Your task to perform on an android device: What's on my calendar tomorrow? Image 0: 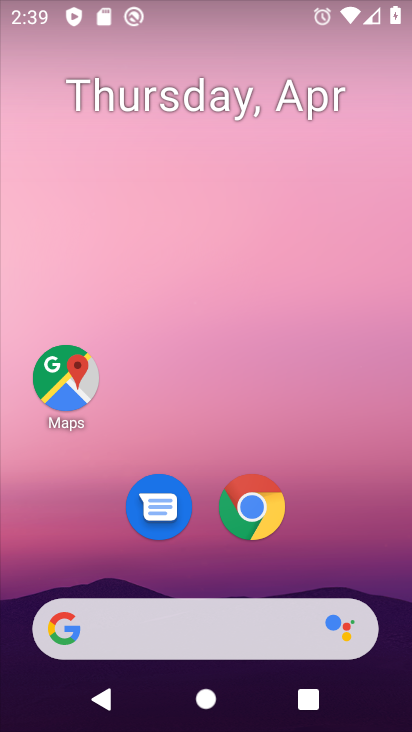
Step 0: drag from (377, 571) to (375, 108)
Your task to perform on an android device: What's on my calendar tomorrow? Image 1: 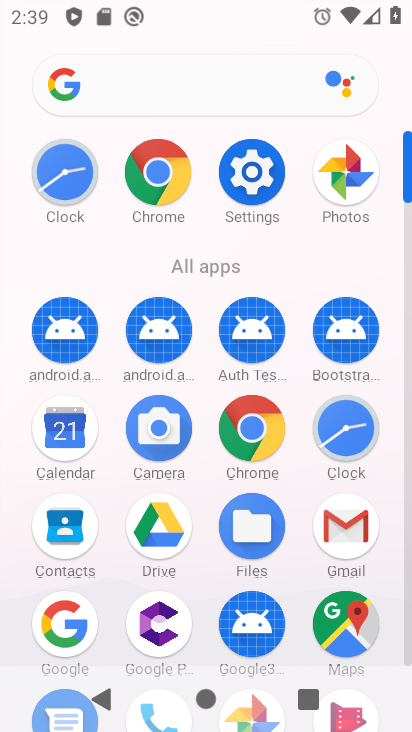
Step 1: click (53, 430)
Your task to perform on an android device: What's on my calendar tomorrow? Image 2: 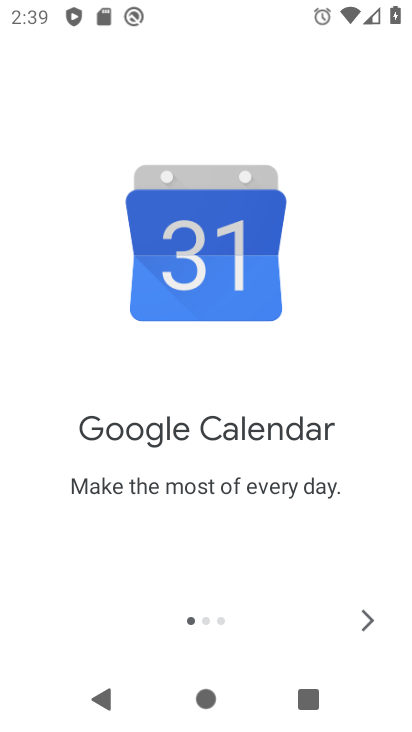
Step 2: click (366, 614)
Your task to perform on an android device: What's on my calendar tomorrow? Image 3: 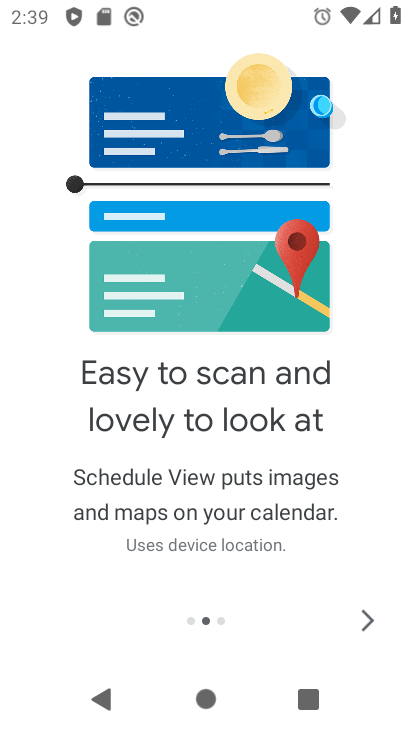
Step 3: click (366, 614)
Your task to perform on an android device: What's on my calendar tomorrow? Image 4: 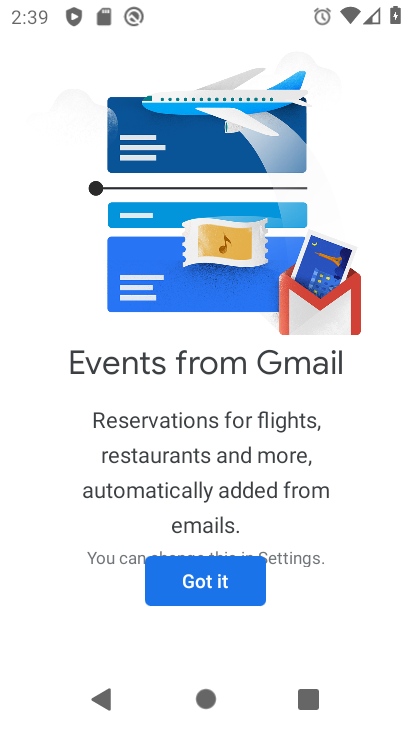
Step 4: click (244, 586)
Your task to perform on an android device: What's on my calendar tomorrow? Image 5: 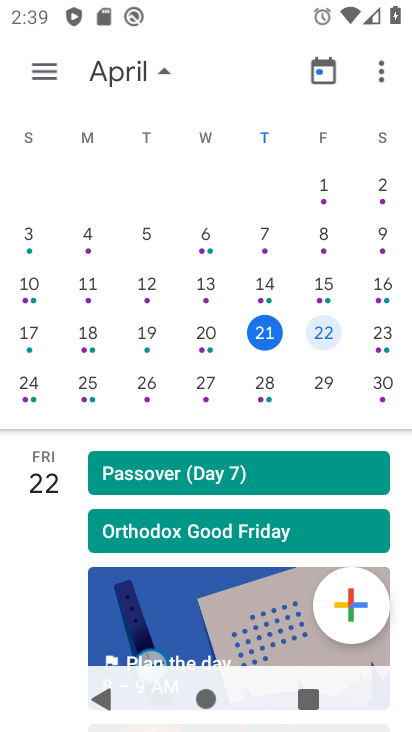
Step 5: click (326, 333)
Your task to perform on an android device: What's on my calendar tomorrow? Image 6: 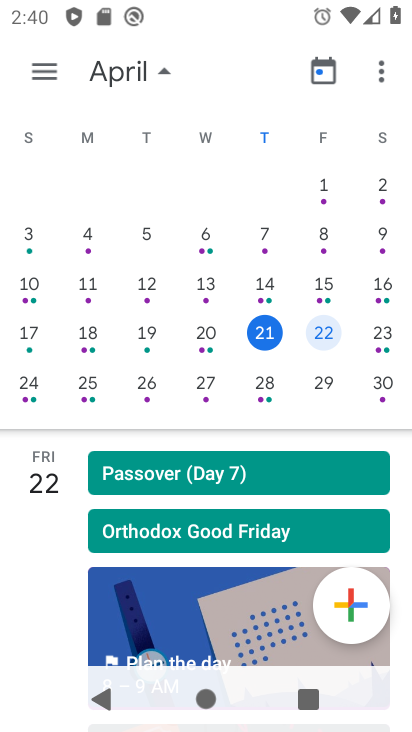
Step 6: click (326, 333)
Your task to perform on an android device: What's on my calendar tomorrow? Image 7: 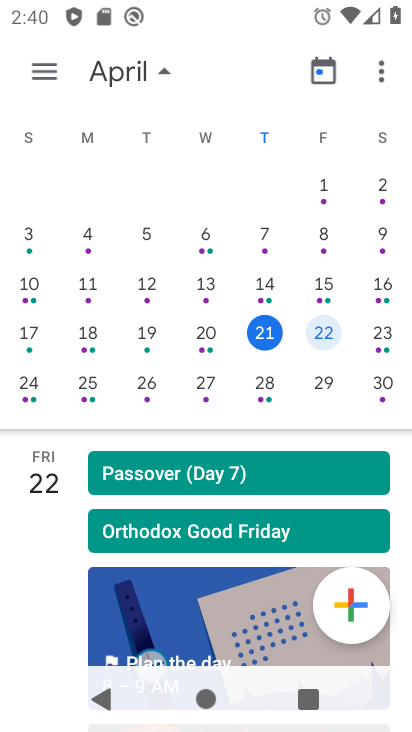
Step 7: click (330, 343)
Your task to perform on an android device: What's on my calendar tomorrow? Image 8: 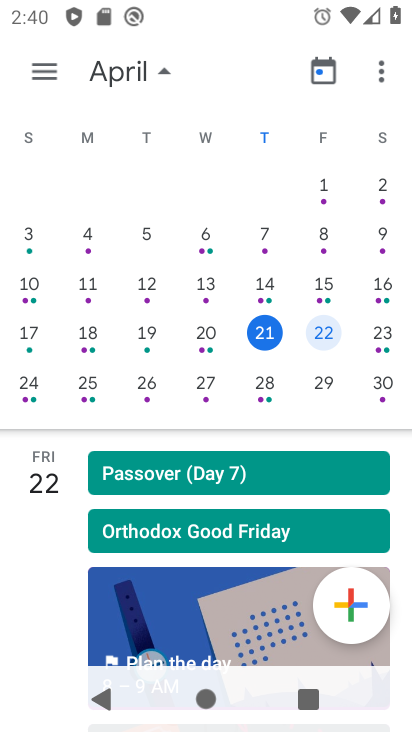
Step 8: click (327, 338)
Your task to perform on an android device: What's on my calendar tomorrow? Image 9: 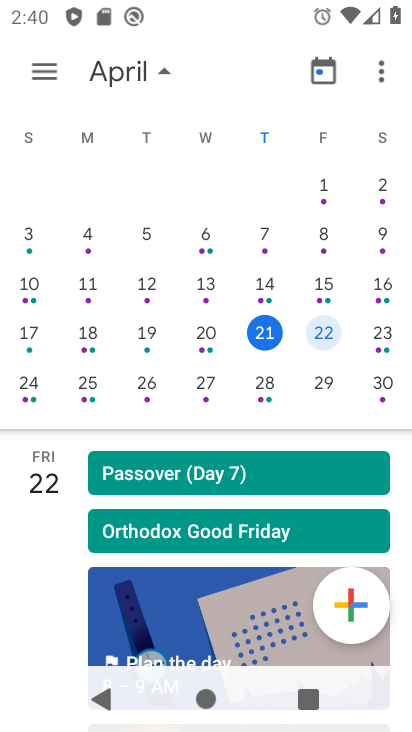
Step 9: task complete